Your task to perform on an android device: Go to location settings Image 0: 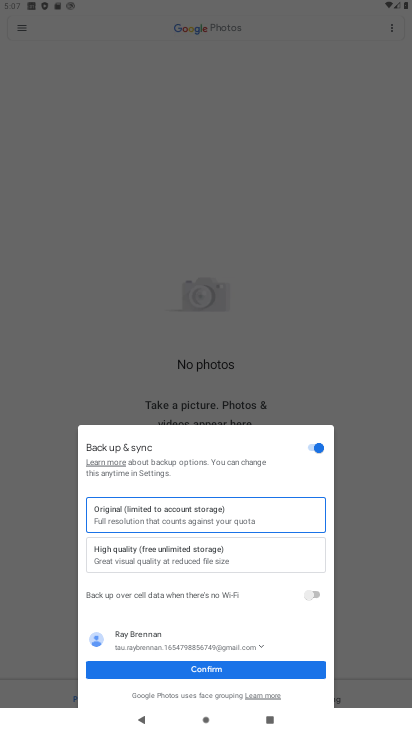
Step 0: press home button
Your task to perform on an android device: Go to location settings Image 1: 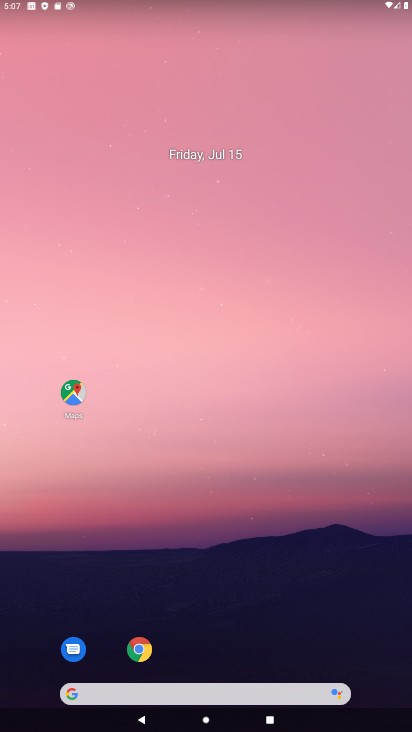
Step 1: drag from (170, 700) to (219, 149)
Your task to perform on an android device: Go to location settings Image 2: 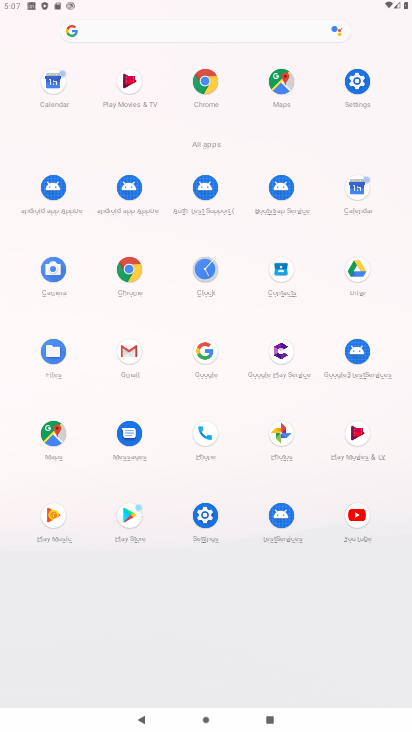
Step 2: click (358, 83)
Your task to perform on an android device: Go to location settings Image 3: 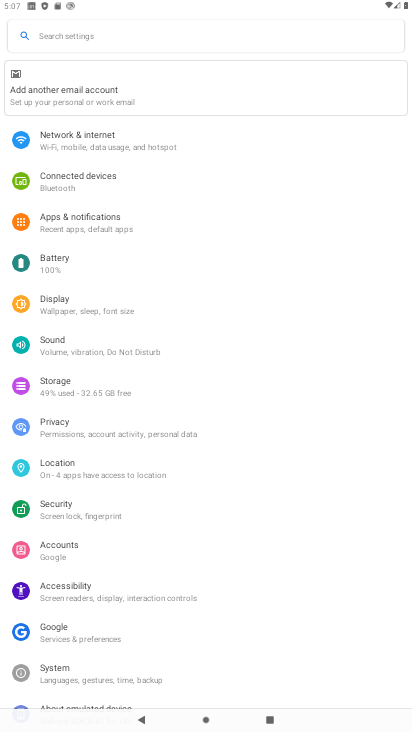
Step 3: click (71, 468)
Your task to perform on an android device: Go to location settings Image 4: 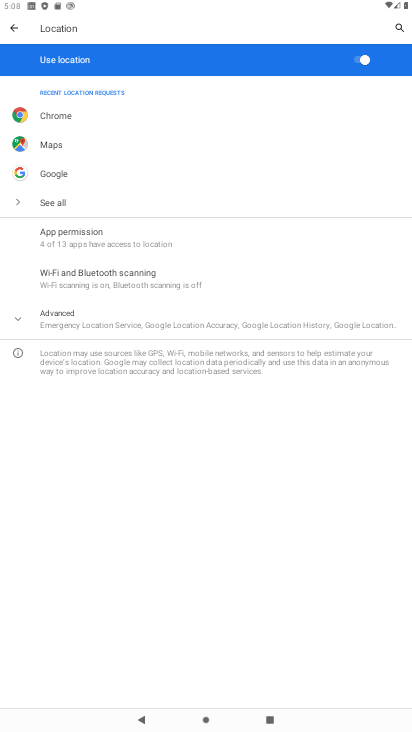
Step 4: task complete